Your task to perform on an android device: open a bookmark in the chrome app Image 0: 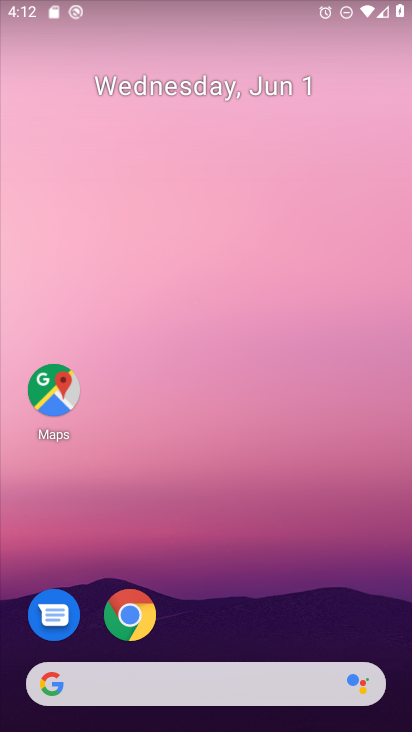
Step 0: press home button
Your task to perform on an android device: open a bookmark in the chrome app Image 1: 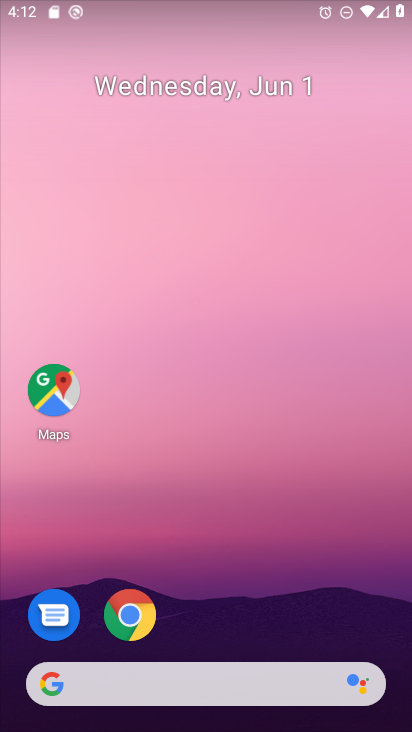
Step 1: click (127, 610)
Your task to perform on an android device: open a bookmark in the chrome app Image 2: 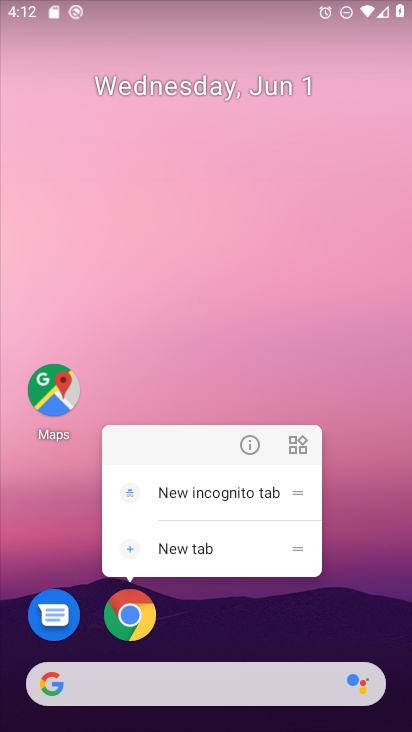
Step 2: click (127, 606)
Your task to perform on an android device: open a bookmark in the chrome app Image 3: 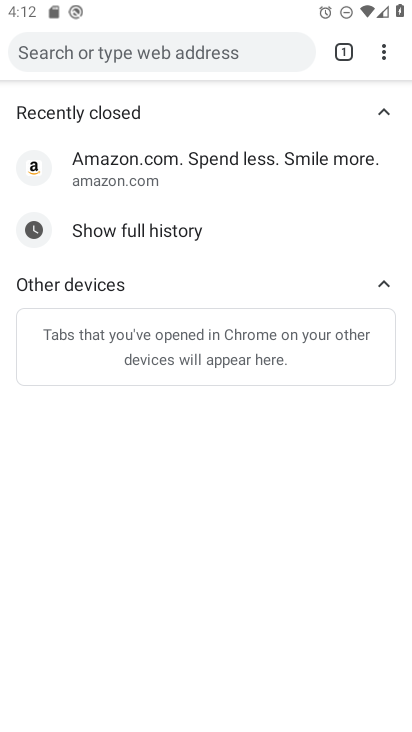
Step 3: click (390, 45)
Your task to perform on an android device: open a bookmark in the chrome app Image 4: 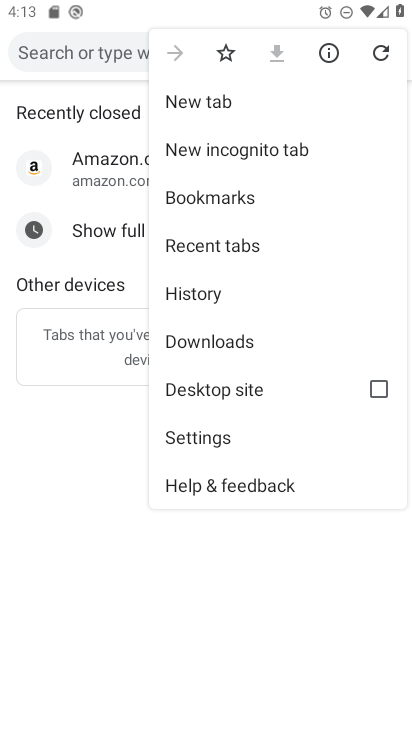
Step 4: click (262, 193)
Your task to perform on an android device: open a bookmark in the chrome app Image 5: 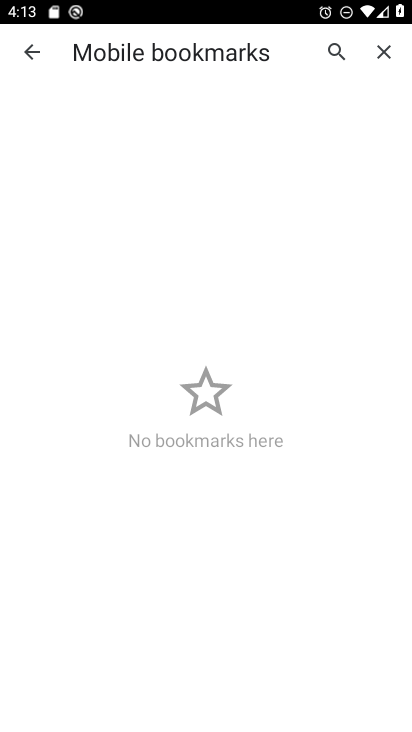
Step 5: task complete